Your task to perform on an android device: turn pop-ups on in chrome Image 0: 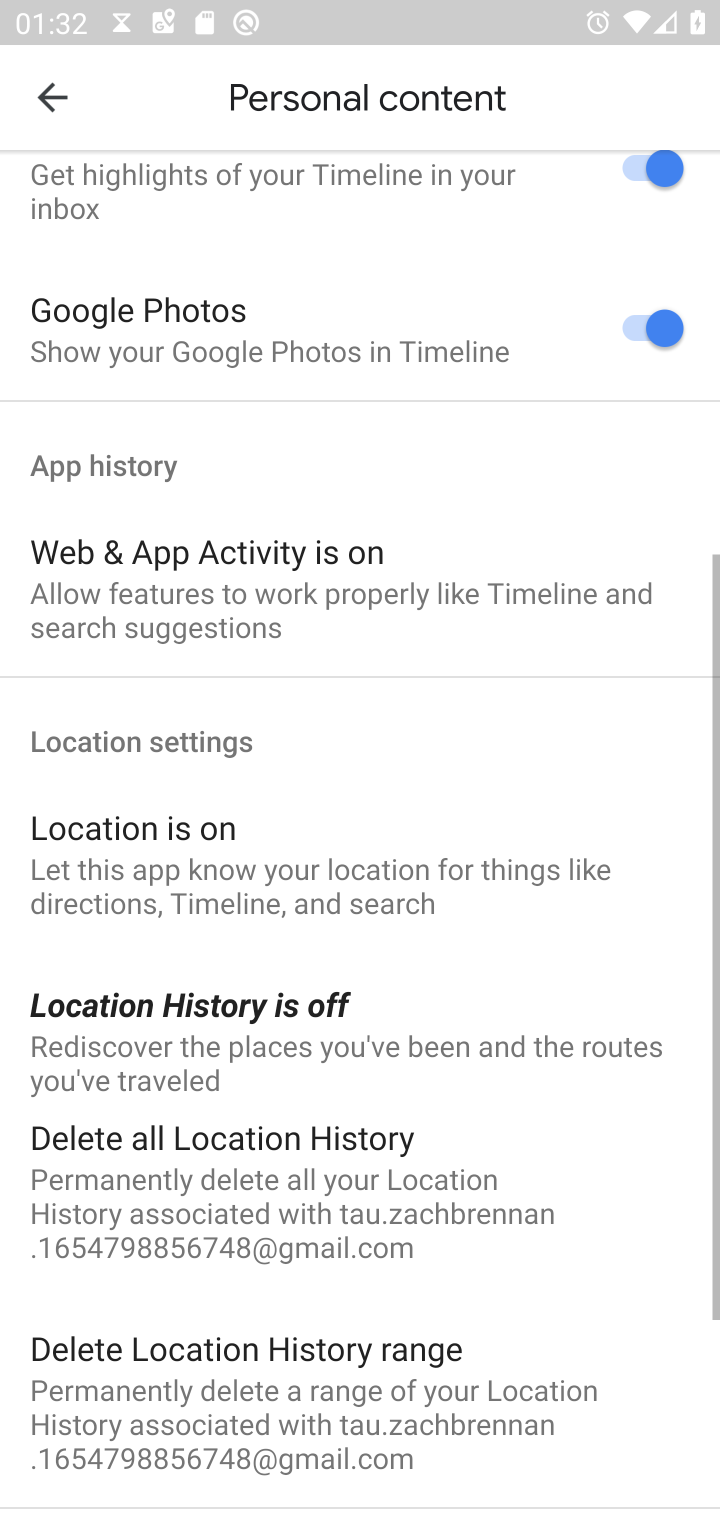
Step 0: press home button
Your task to perform on an android device: turn pop-ups on in chrome Image 1: 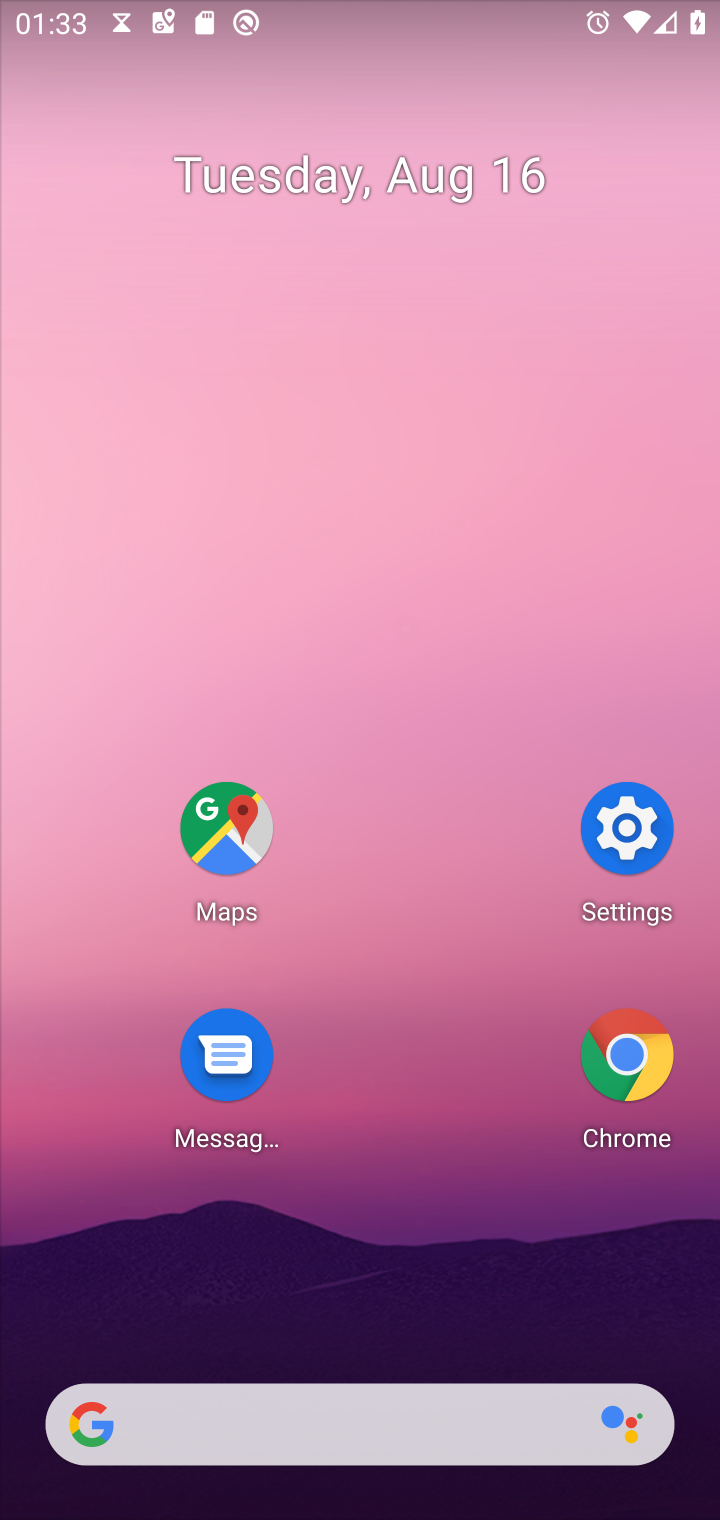
Step 1: click (630, 1080)
Your task to perform on an android device: turn pop-ups on in chrome Image 2: 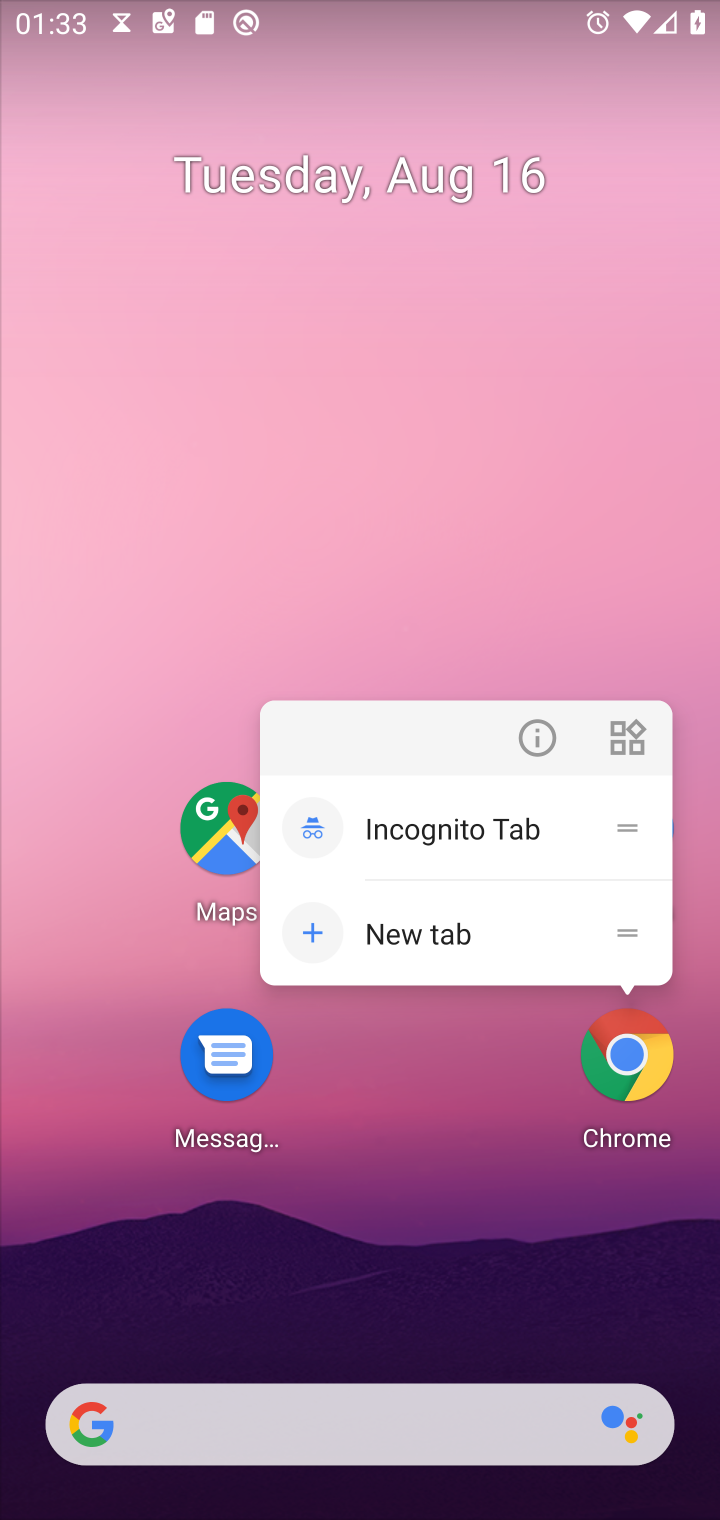
Step 2: click (630, 1087)
Your task to perform on an android device: turn pop-ups on in chrome Image 3: 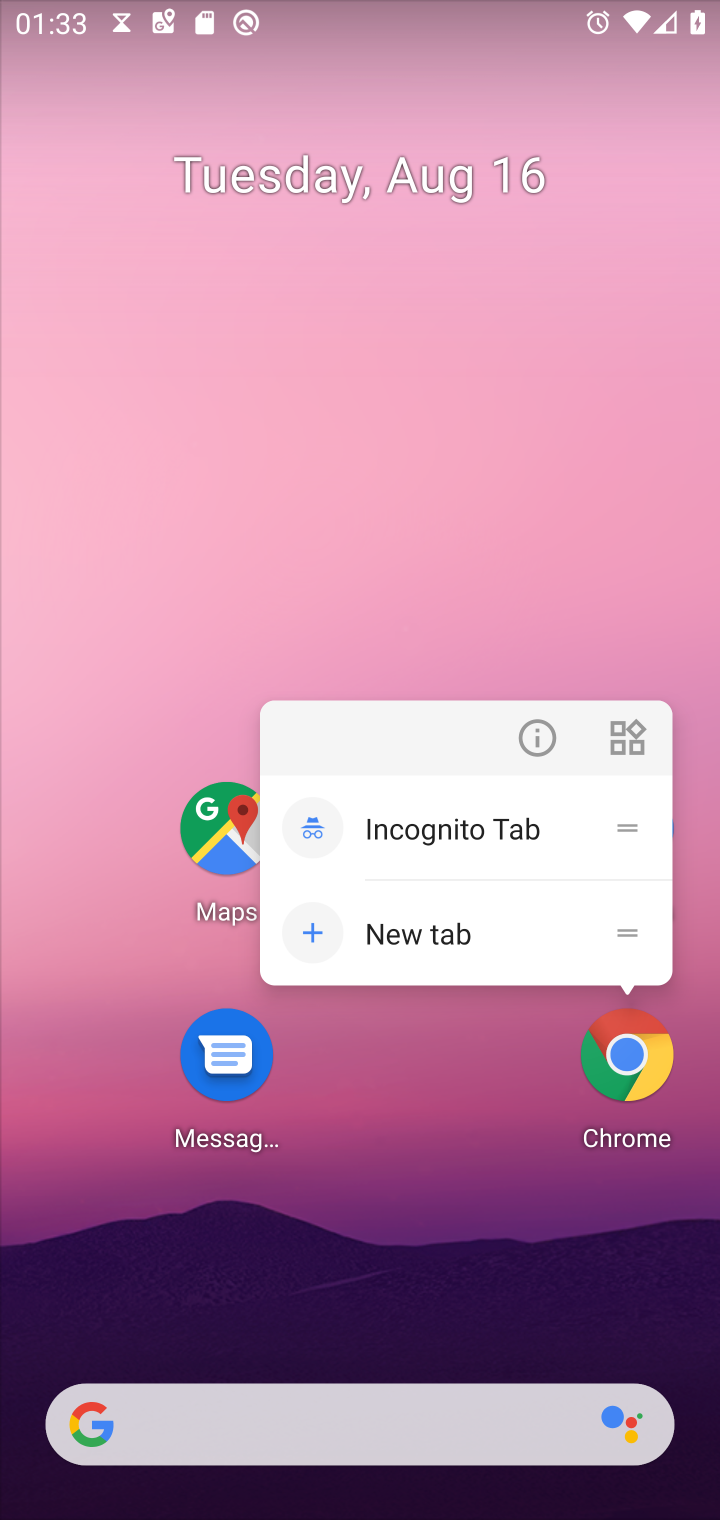
Step 3: click (640, 1057)
Your task to perform on an android device: turn pop-ups on in chrome Image 4: 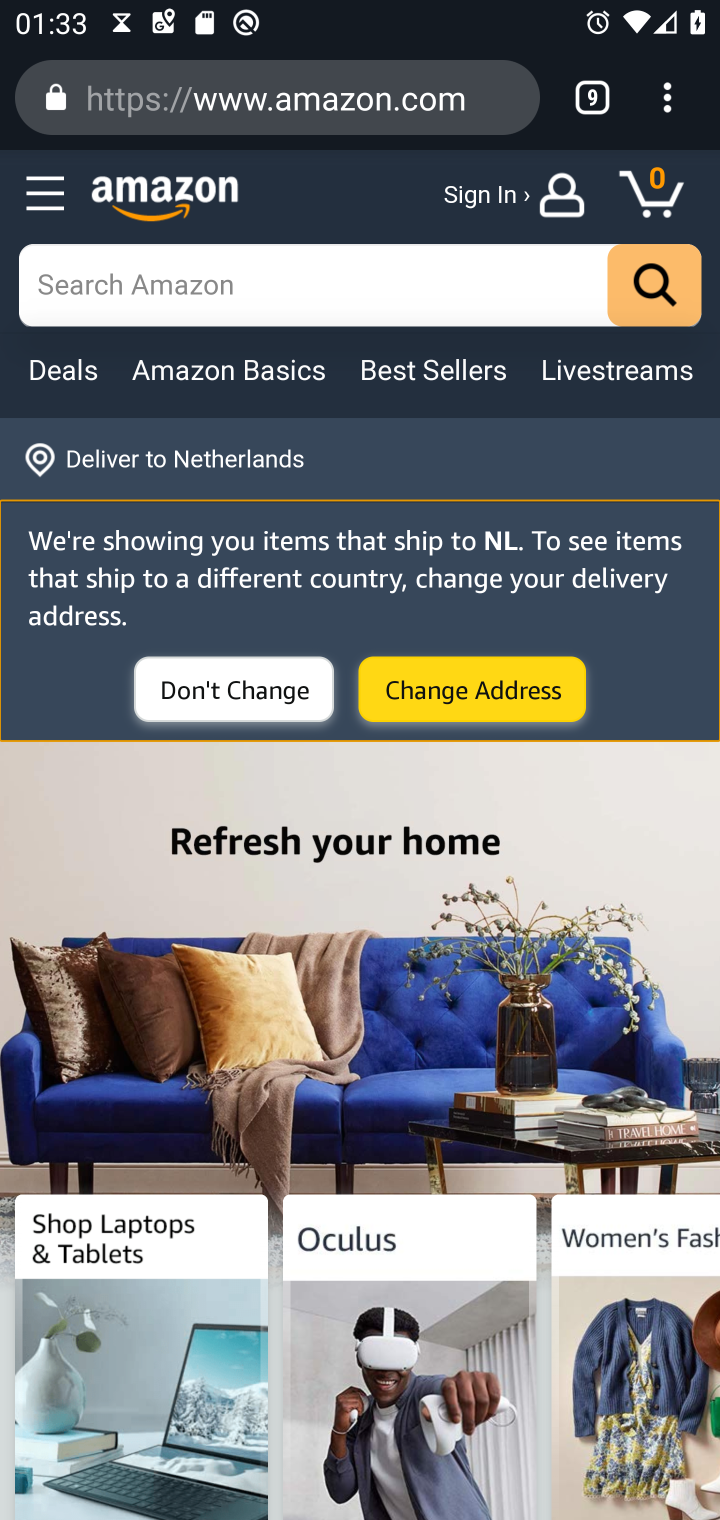
Step 4: drag from (672, 105) to (406, 1179)
Your task to perform on an android device: turn pop-ups on in chrome Image 5: 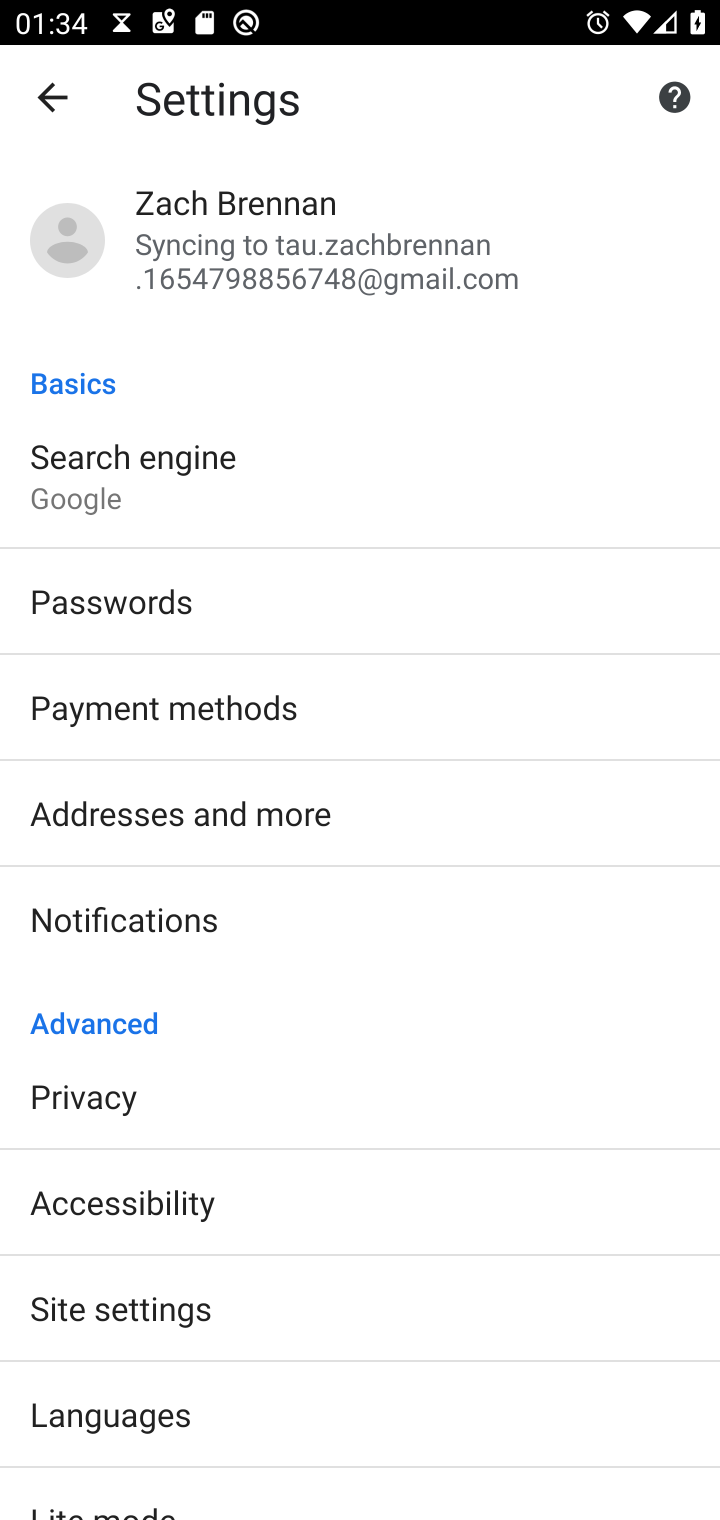
Step 5: click (174, 1309)
Your task to perform on an android device: turn pop-ups on in chrome Image 6: 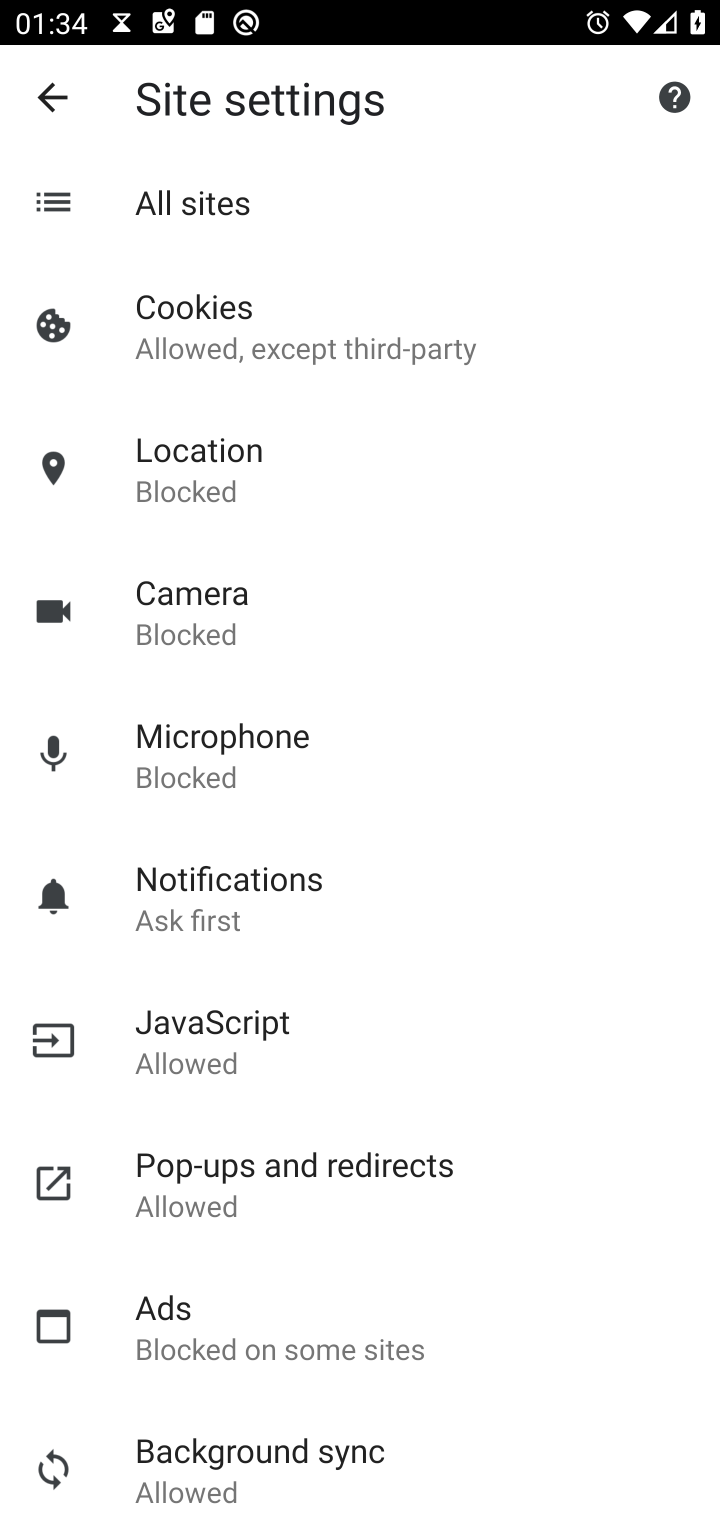
Step 6: click (275, 1175)
Your task to perform on an android device: turn pop-ups on in chrome Image 7: 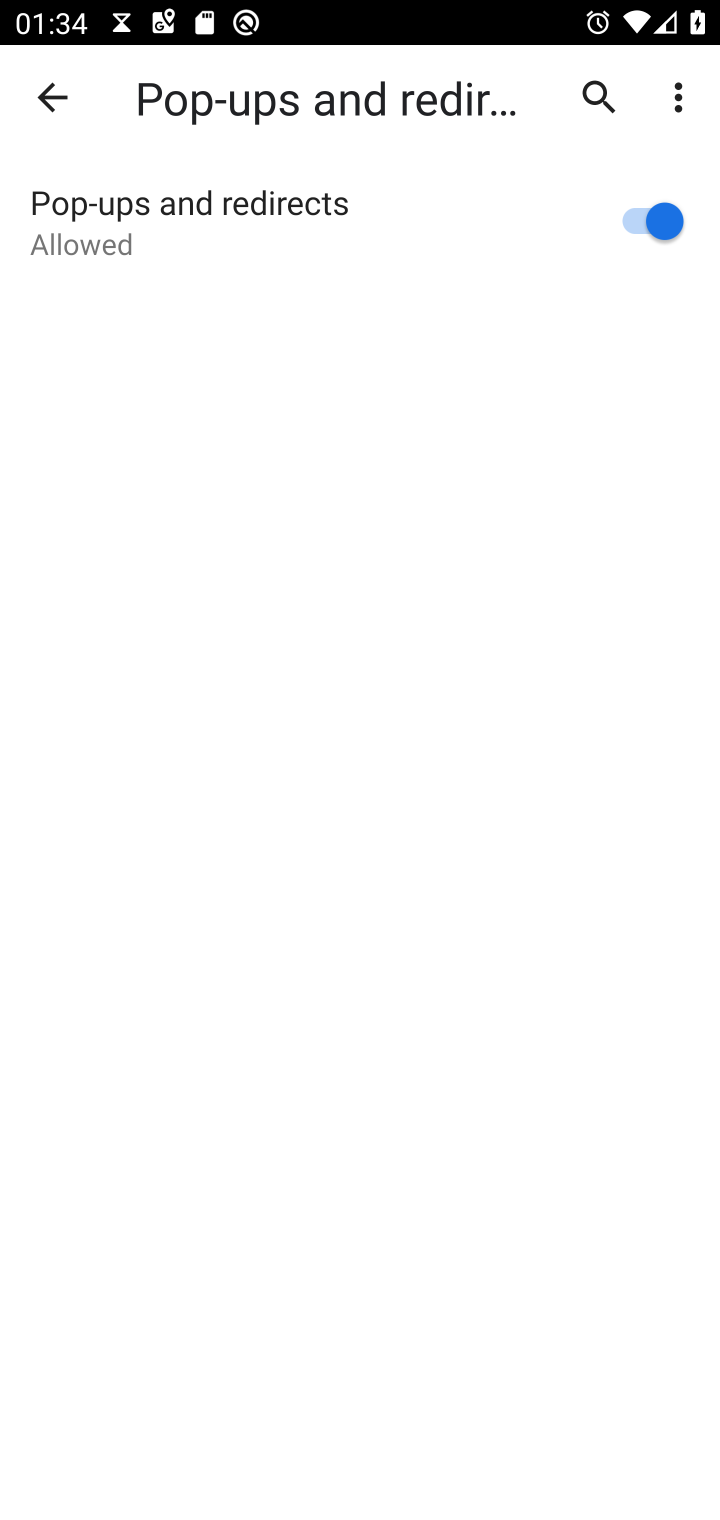
Step 7: task complete